Your task to perform on an android device: turn on showing notifications on the lock screen Image 0: 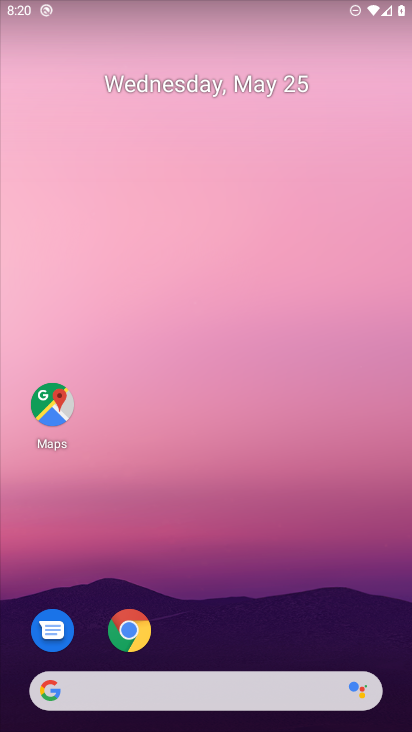
Step 0: drag from (205, 671) to (266, 344)
Your task to perform on an android device: turn on showing notifications on the lock screen Image 1: 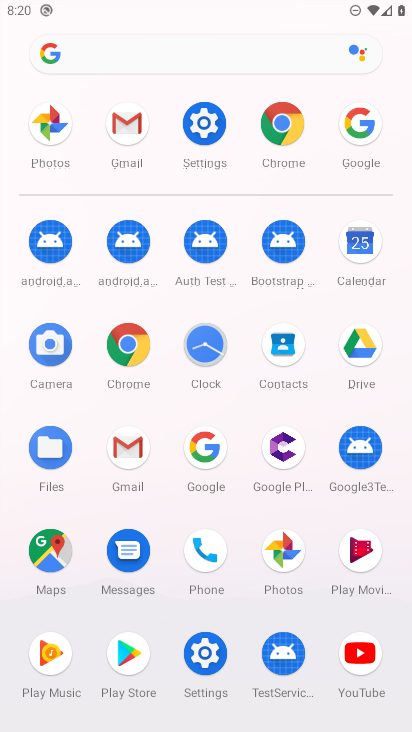
Step 1: click (197, 654)
Your task to perform on an android device: turn on showing notifications on the lock screen Image 2: 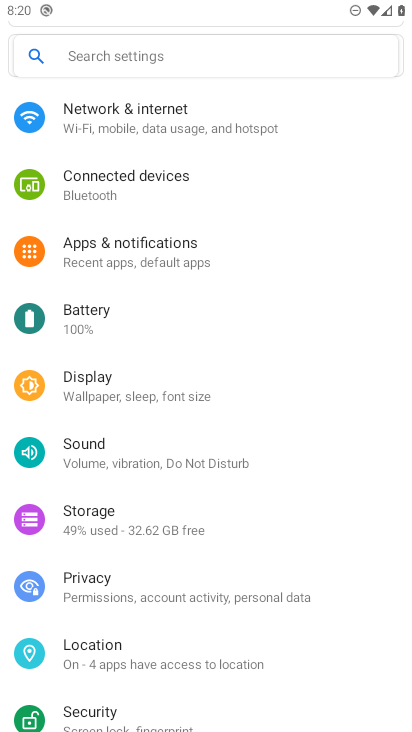
Step 2: click (140, 658)
Your task to perform on an android device: turn on showing notifications on the lock screen Image 3: 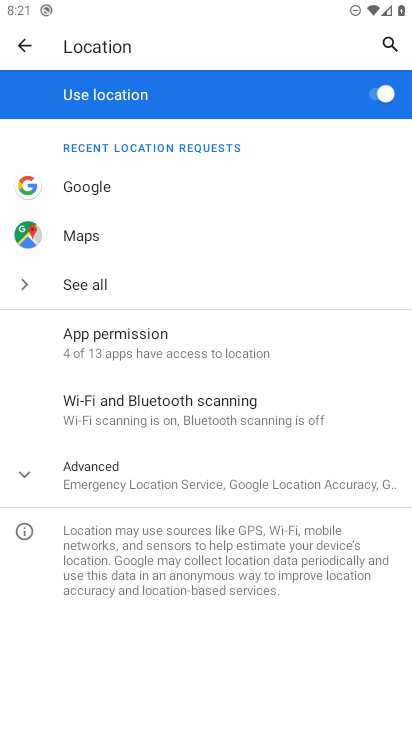
Step 3: click (169, 478)
Your task to perform on an android device: turn on showing notifications on the lock screen Image 4: 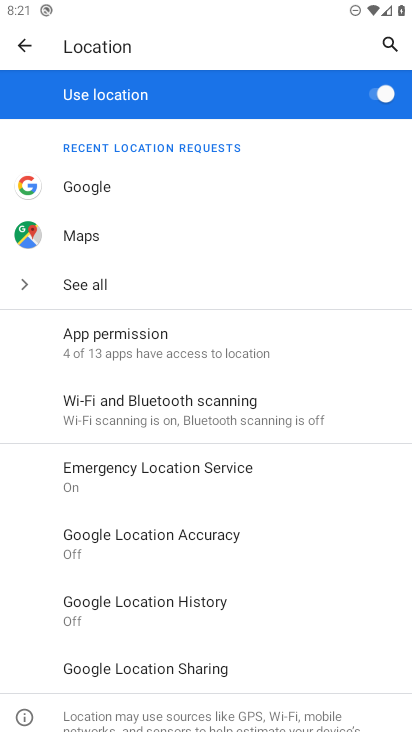
Step 4: click (29, 45)
Your task to perform on an android device: turn on showing notifications on the lock screen Image 5: 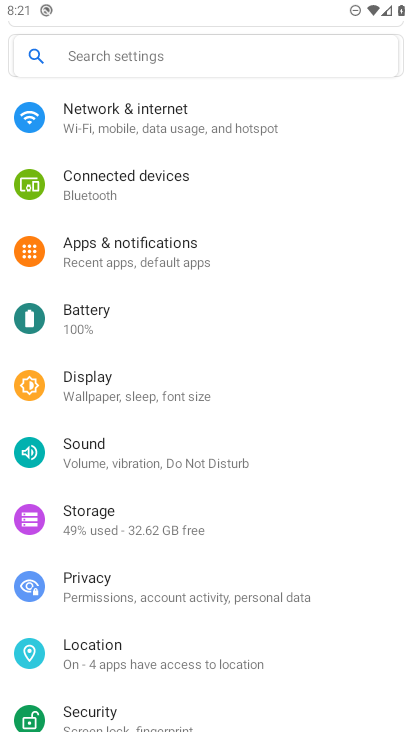
Step 5: click (86, 594)
Your task to perform on an android device: turn on showing notifications on the lock screen Image 6: 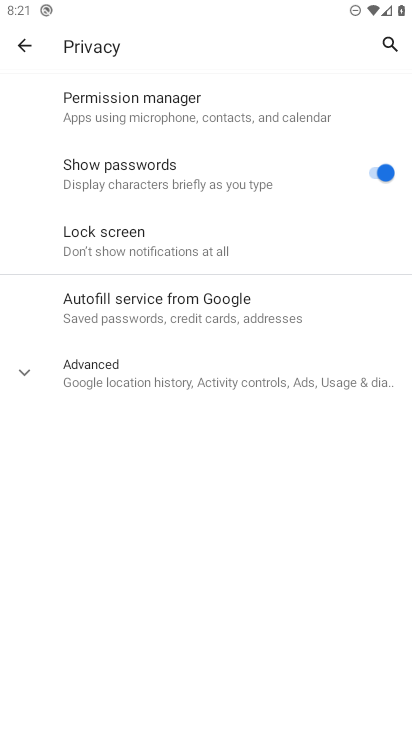
Step 6: click (98, 379)
Your task to perform on an android device: turn on showing notifications on the lock screen Image 7: 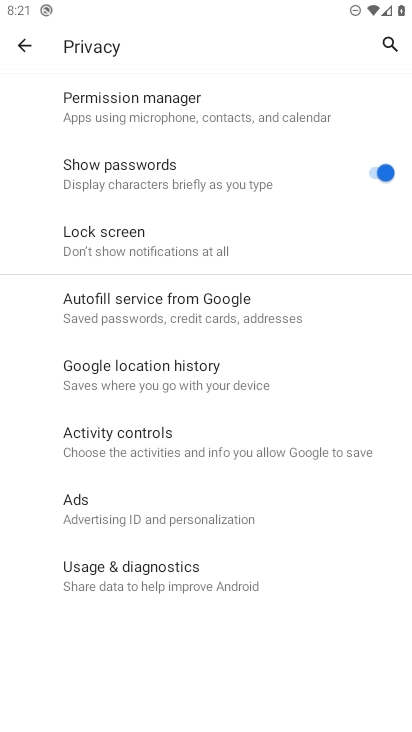
Step 7: click (122, 250)
Your task to perform on an android device: turn on showing notifications on the lock screen Image 8: 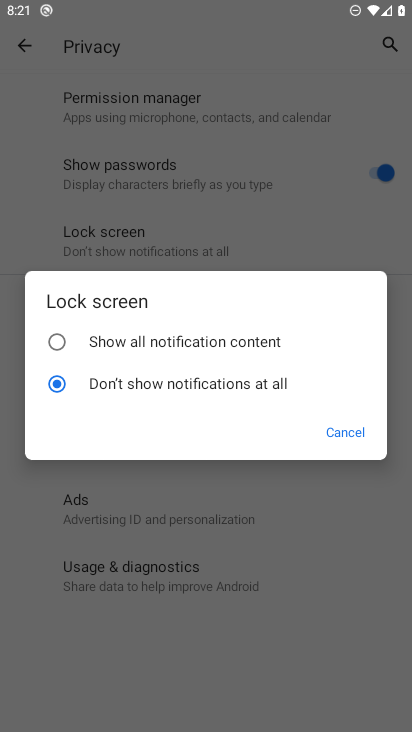
Step 8: click (139, 347)
Your task to perform on an android device: turn on showing notifications on the lock screen Image 9: 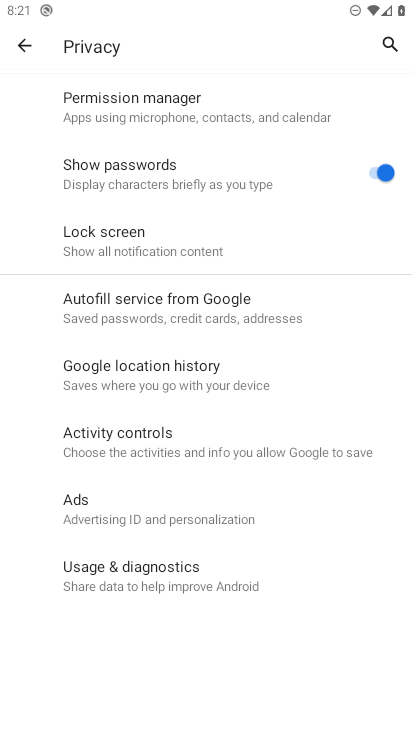
Step 9: task complete